Your task to perform on an android device: Is it going to rain today? Image 0: 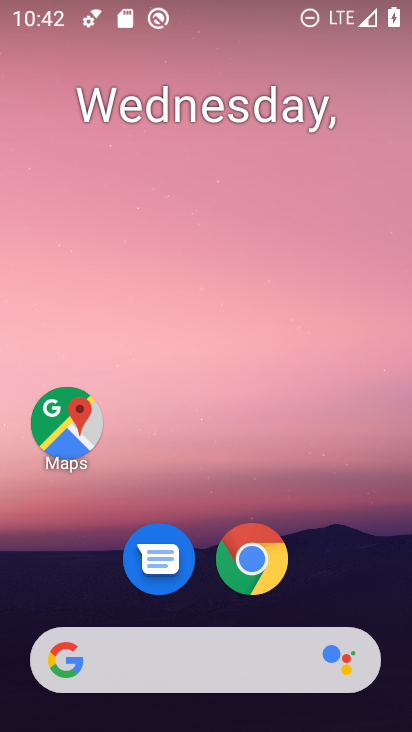
Step 0: click (263, 658)
Your task to perform on an android device: Is it going to rain today? Image 1: 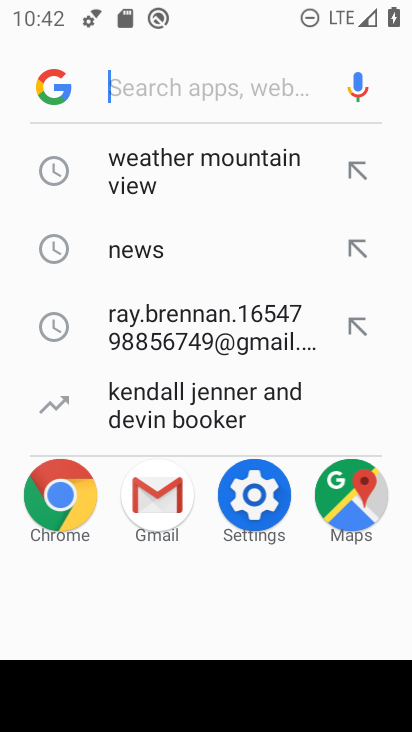
Step 1: click (192, 178)
Your task to perform on an android device: Is it going to rain today? Image 2: 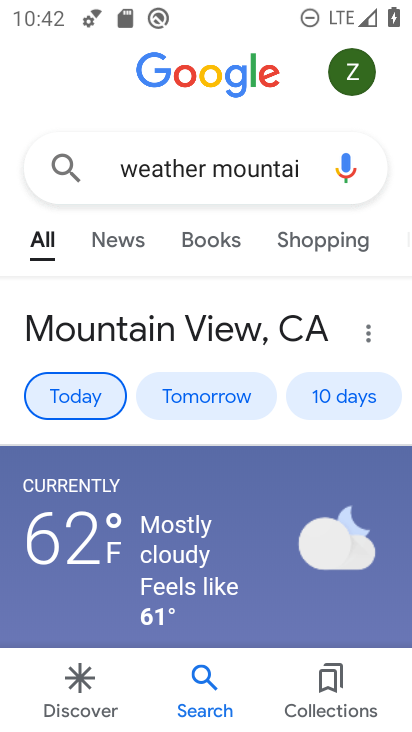
Step 2: drag from (199, 537) to (195, 377)
Your task to perform on an android device: Is it going to rain today? Image 3: 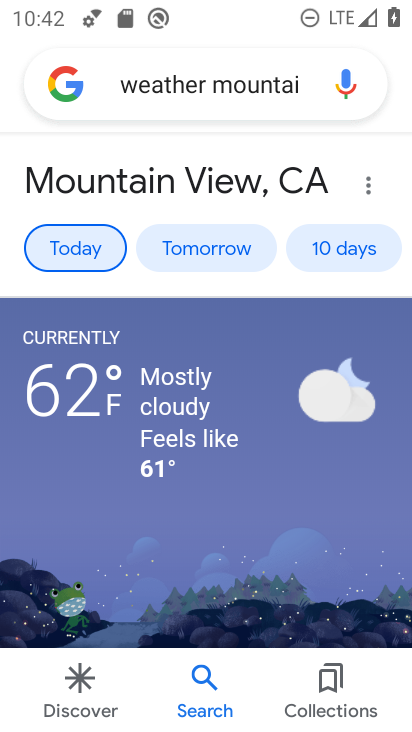
Step 3: click (73, 239)
Your task to perform on an android device: Is it going to rain today? Image 4: 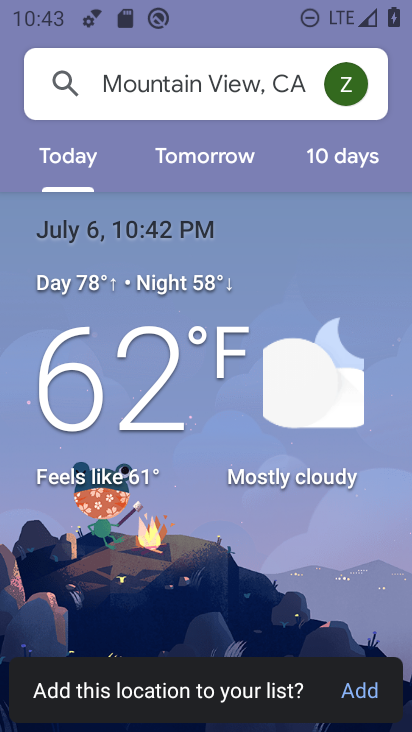
Step 4: task complete